Your task to perform on an android device: turn on sleep mode Image 0: 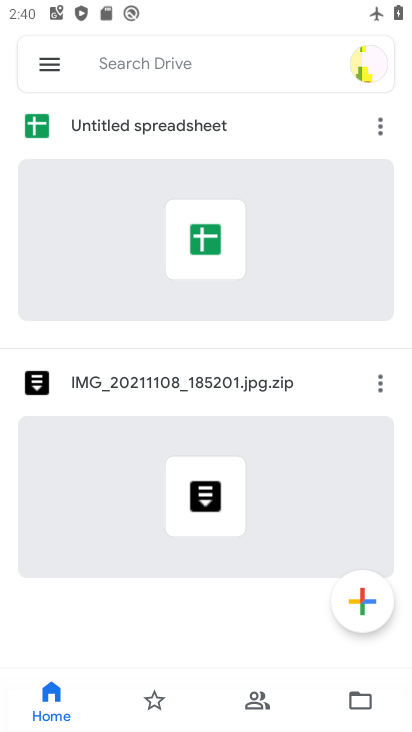
Step 0: press home button
Your task to perform on an android device: turn on sleep mode Image 1: 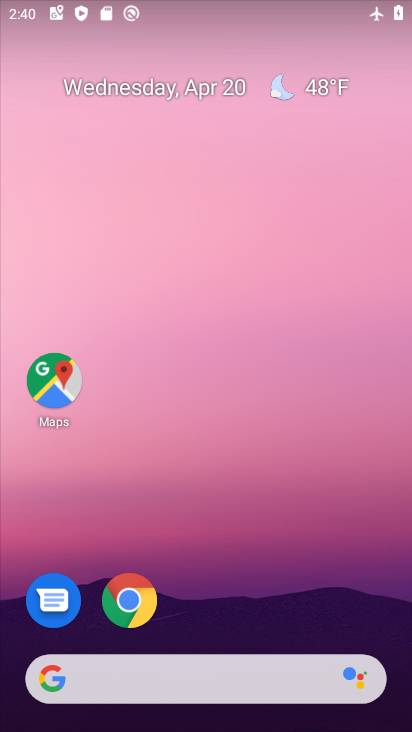
Step 1: drag from (241, 533) to (356, 100)
Your task to perform on an android device: turn on sleep mode Image 2: 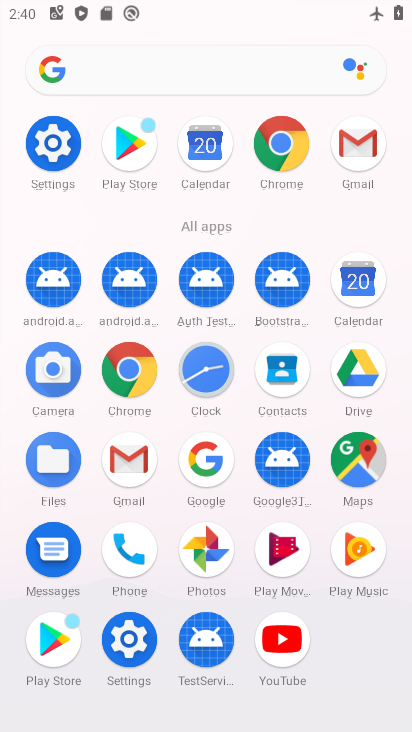
Step 2: click (55, 128)
Your task to perform on an android device: turn on sleep mode Image 3: 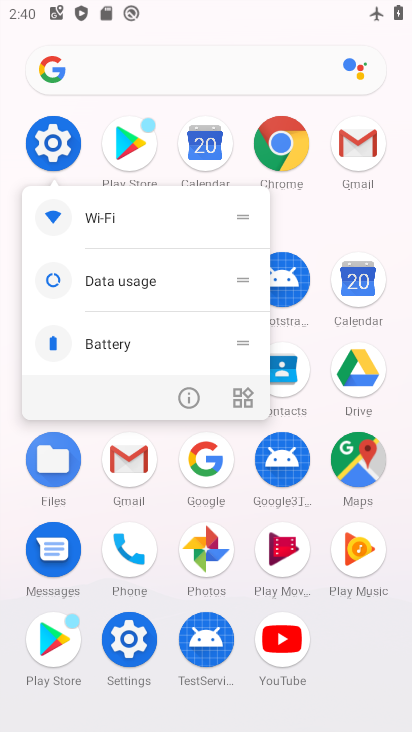
Step 3: click (76, 137)
Your task to perform on an android device: turn on sleep mode Image 4: 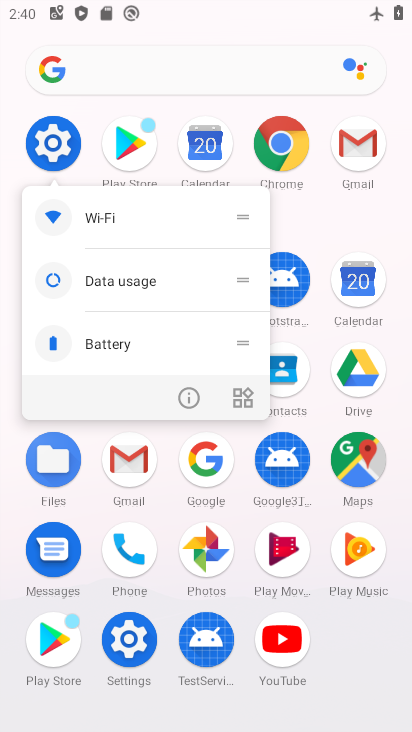
Step 4: click (47, 143)
Your task to perform on an android device: turn on sleep mode Image 5: 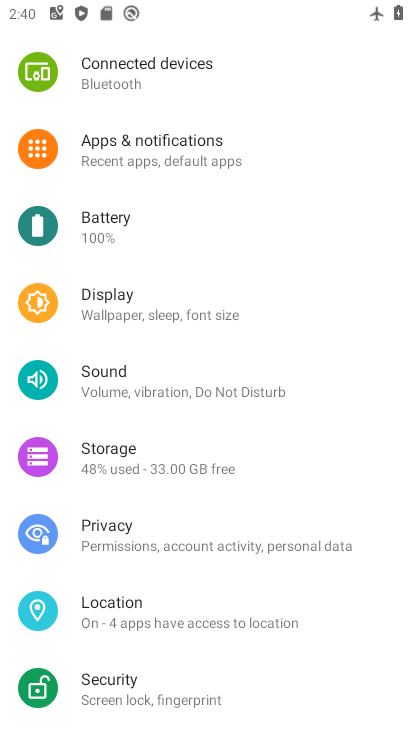
Step 5: click (147, 335)
Your task to perform on an android device: turn on sleep mode Image 6: 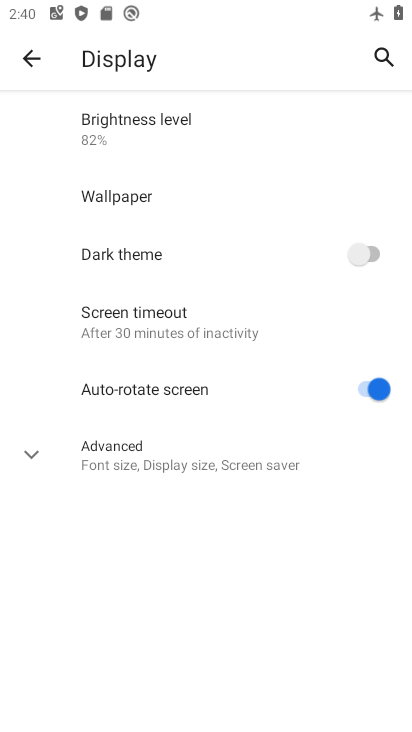
Step 6: click (170, 326)
Your task to perform on an android device: turn on sleep mode Image 7: 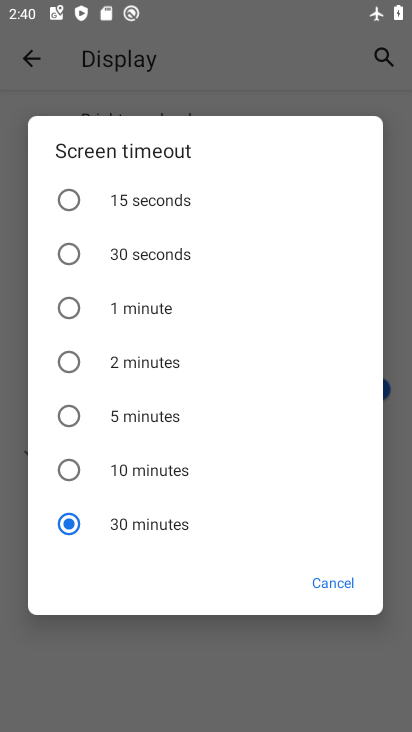
Step 7: click (74, 360)
Your task to perform on an android device: turn on sleep mode Image 8: 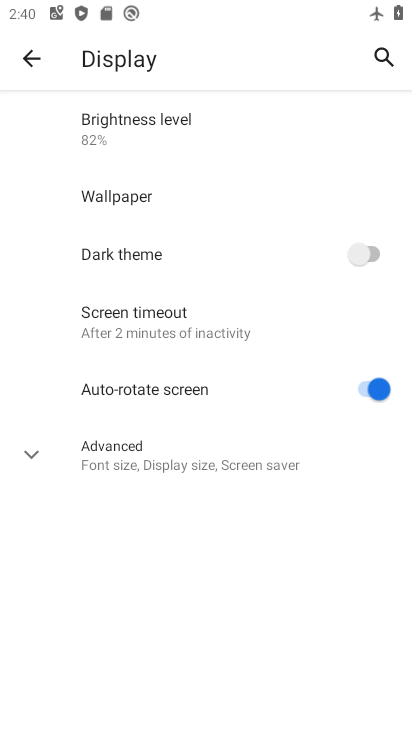
Step 8: task complete